Your task to perform on an android device: Go to Google maps Image 0: 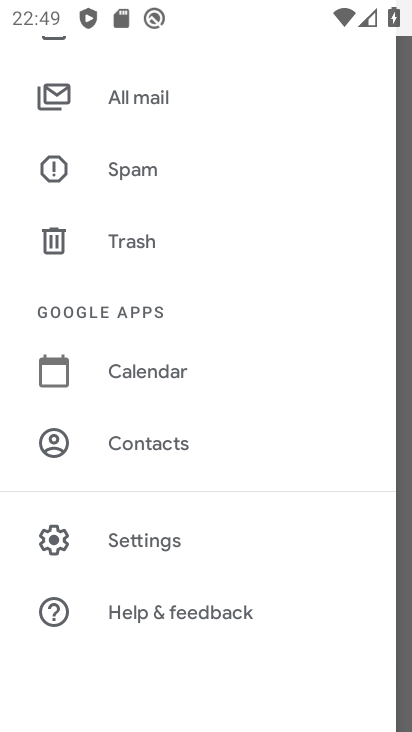
Step 0: press home button
Your task to perform on an android device: Go to Google maps Image 1: 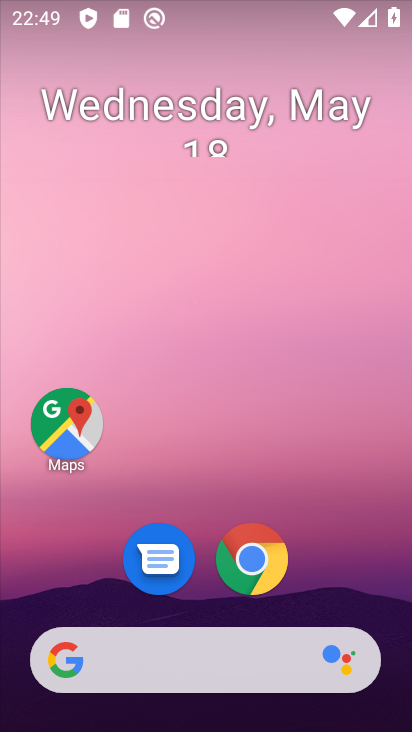
Step 1: click (72, 438)
Your task to perform on an android device: Go to Google maps Image 2: 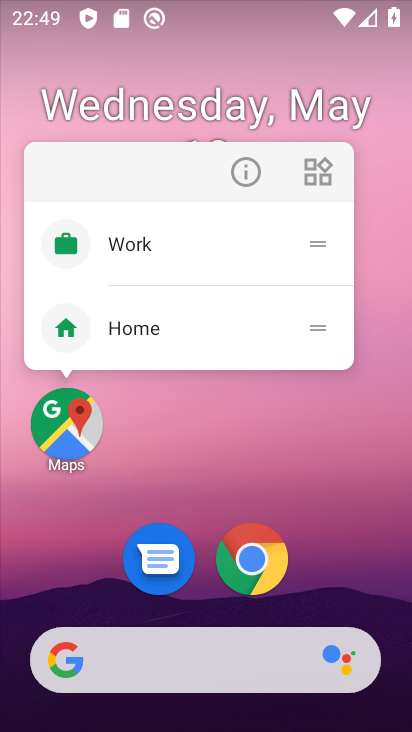
Step 2: click (65, 427)
Your task to perform on an android device: Go to Google maps Image 3: 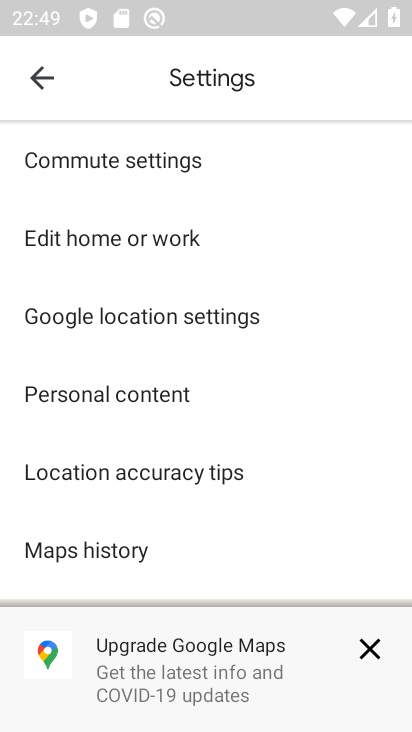
Step 3: press home button
Your task to perform on an android device: Go to Google maps Image 4: 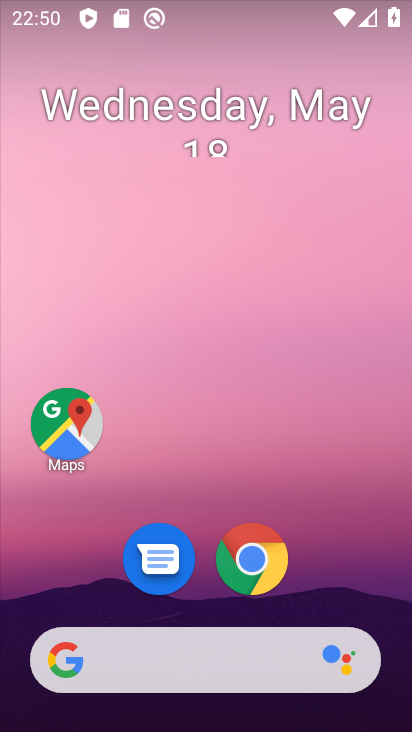
Step 4: click (83, 466)
Your task to perform on an android device: Go to Google maps Image 5: 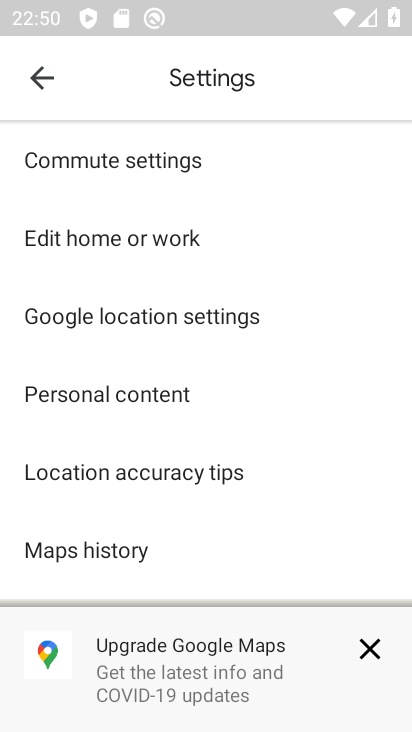
Step 5: task complete